Your task to perform on an android device: open a new tab in the chrome app Image 0: 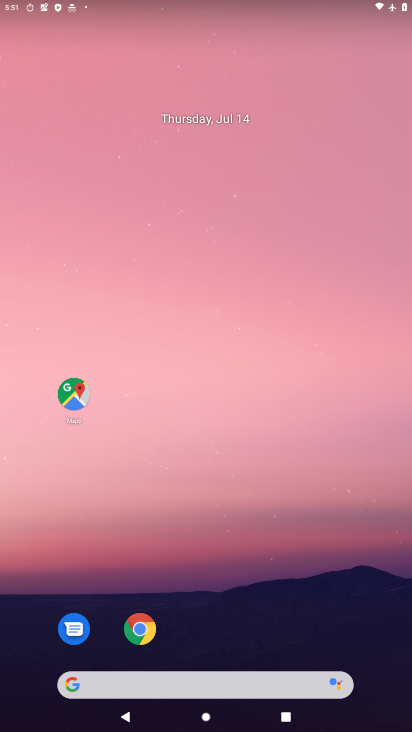
Step 0: drag from (237, 685) to (284, 7)
Your task to perform on an android device: open a new tab in the chrome app Image 1: 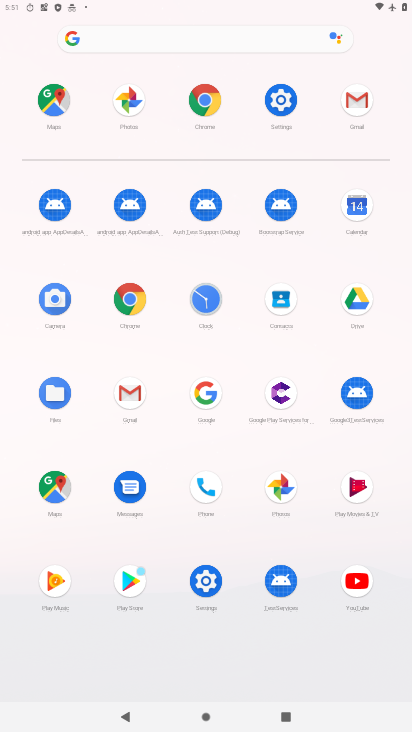
Step 1: click (128, 297)
Your task to perform on an android device: open a new tab in the chrome app Image 2: 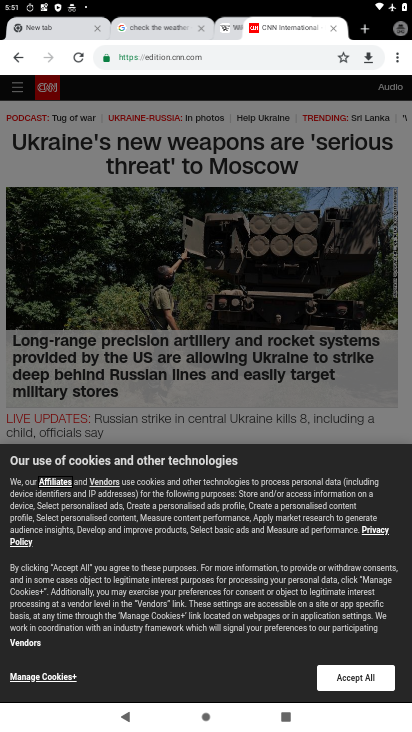
Step 2: click (394, 48)
Your task to perform on an android device: open a new tab in the chrome app Image 3: 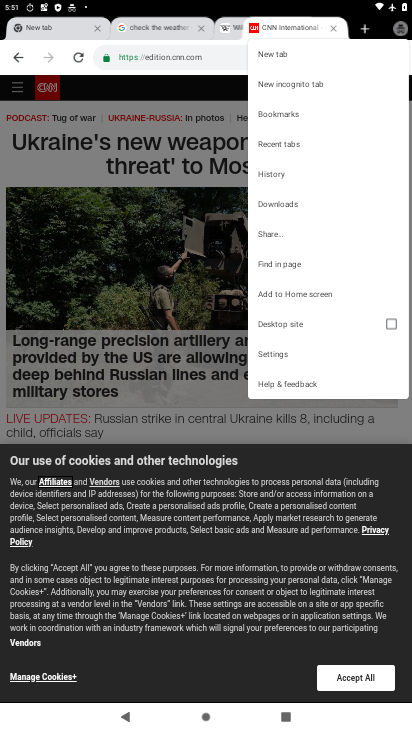
Step 3: click (293, 52)
Your task to perform on an android device: open a new tab in the chrome app Image 4: 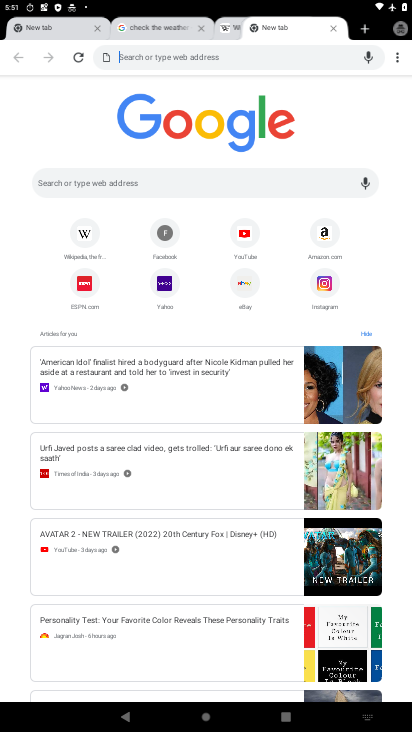
Step 4: task complete